Your task to perform on an android device: open app "Google Keep" Image 0: 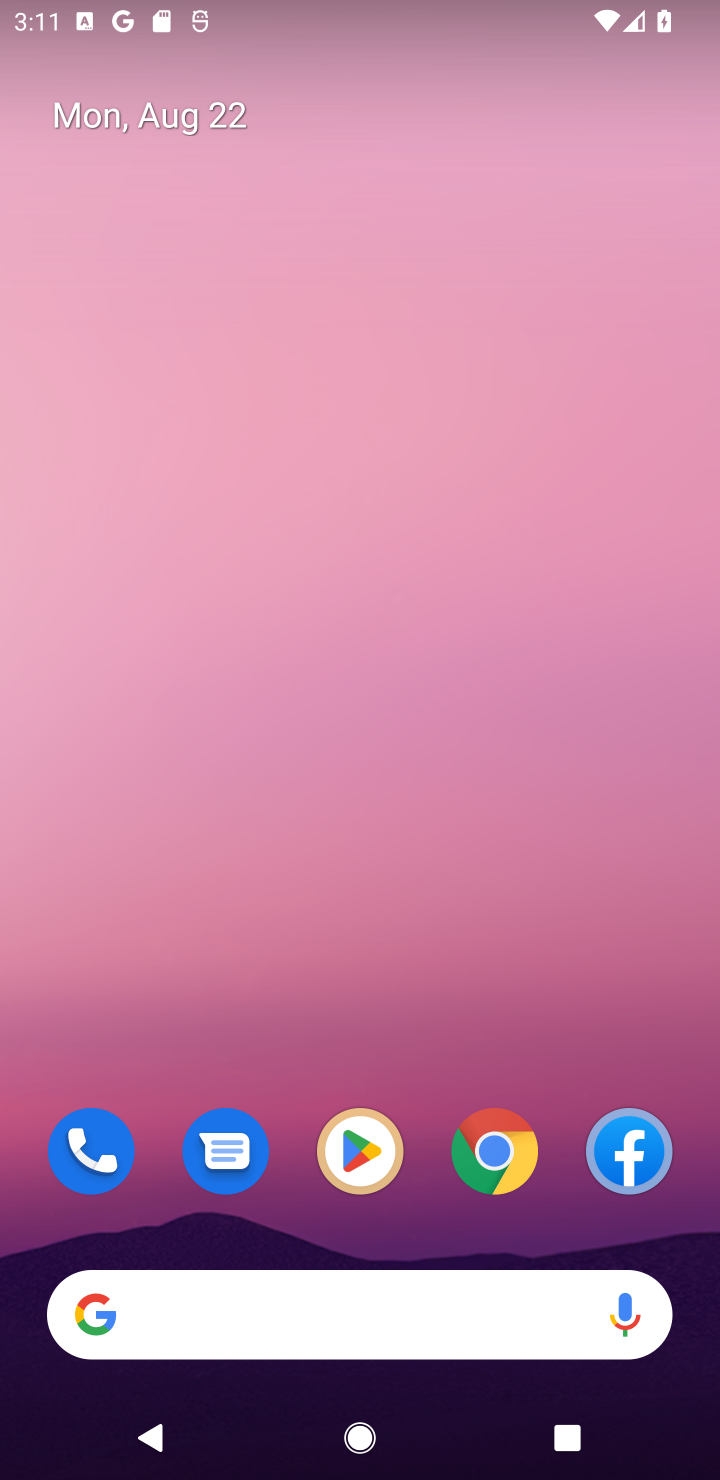
Step 0: click (357, 1170)
Your task to perform on an android device: open app "Google Keep" Image 1: 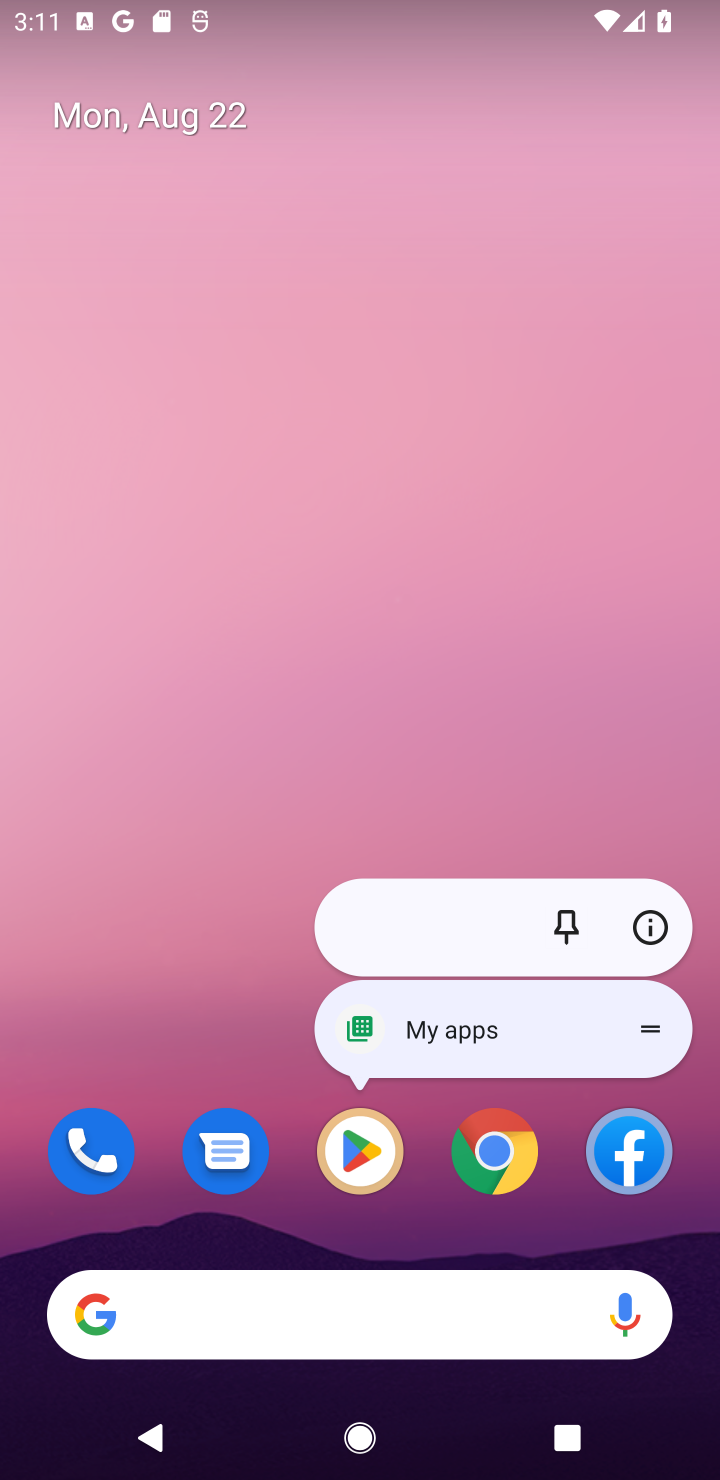
Step 1: click (359, 1181)
Your task to perform on an android device: open app "Google Keep" Image 2: 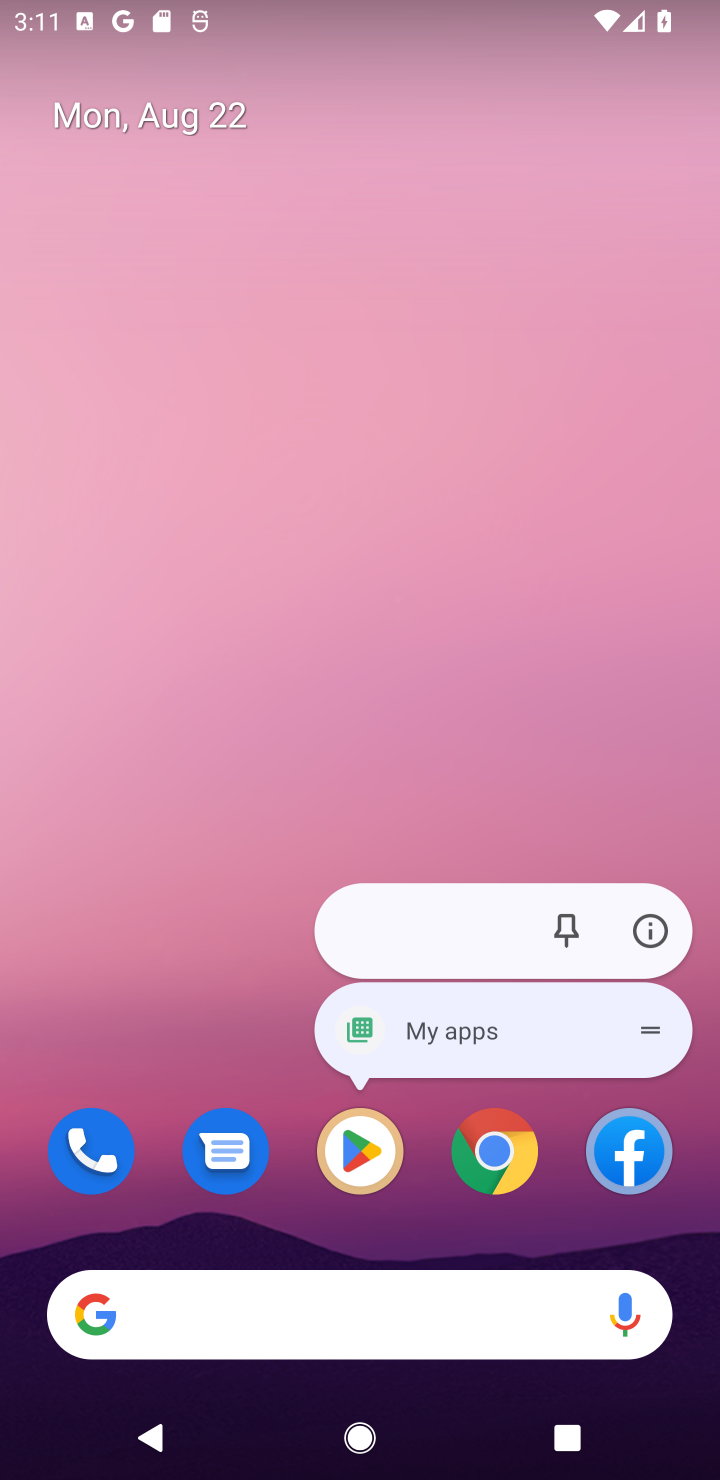
Step 2: click (357, 1152)
Your task to perform on an android device: open app "Google Keep" Image 3: 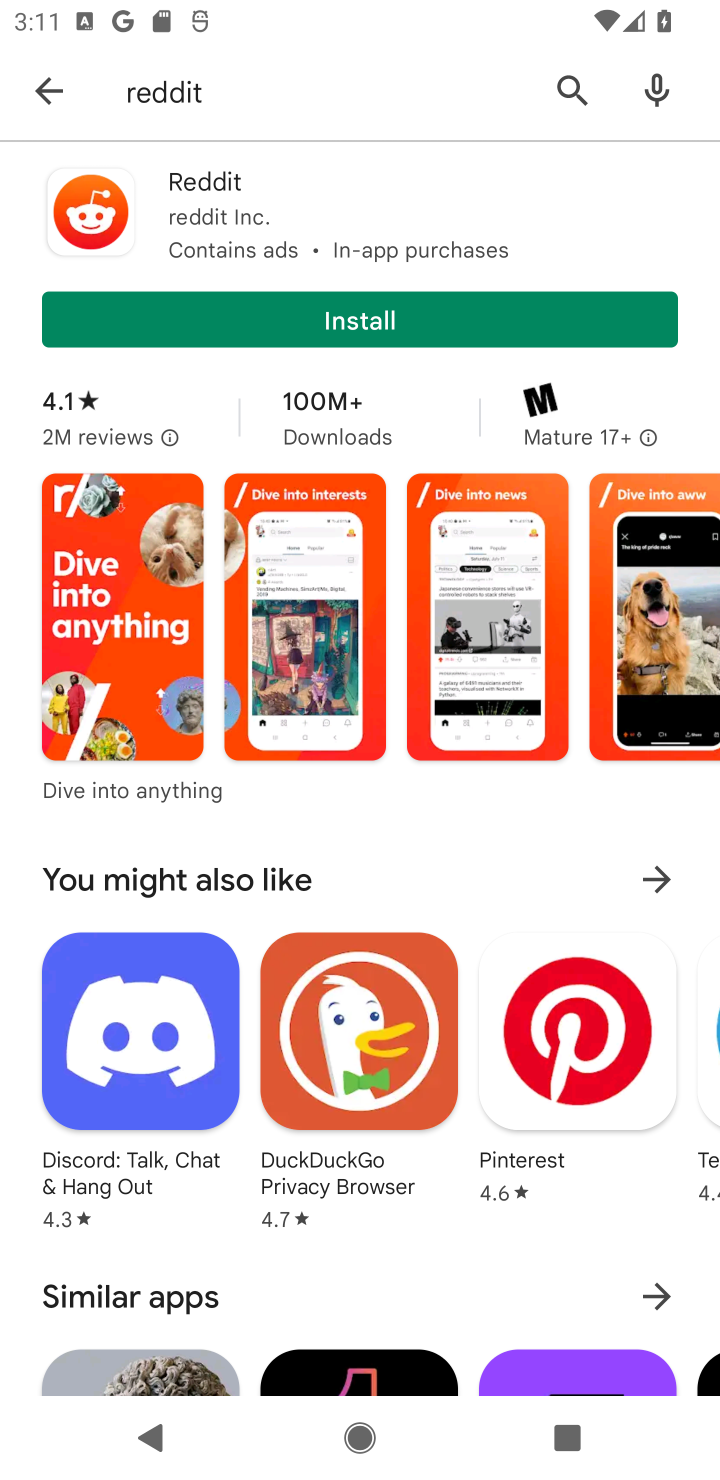
Step 3: click (355, 1158)
Your task to perform on an android device: open app "Google Keep" Image 4: 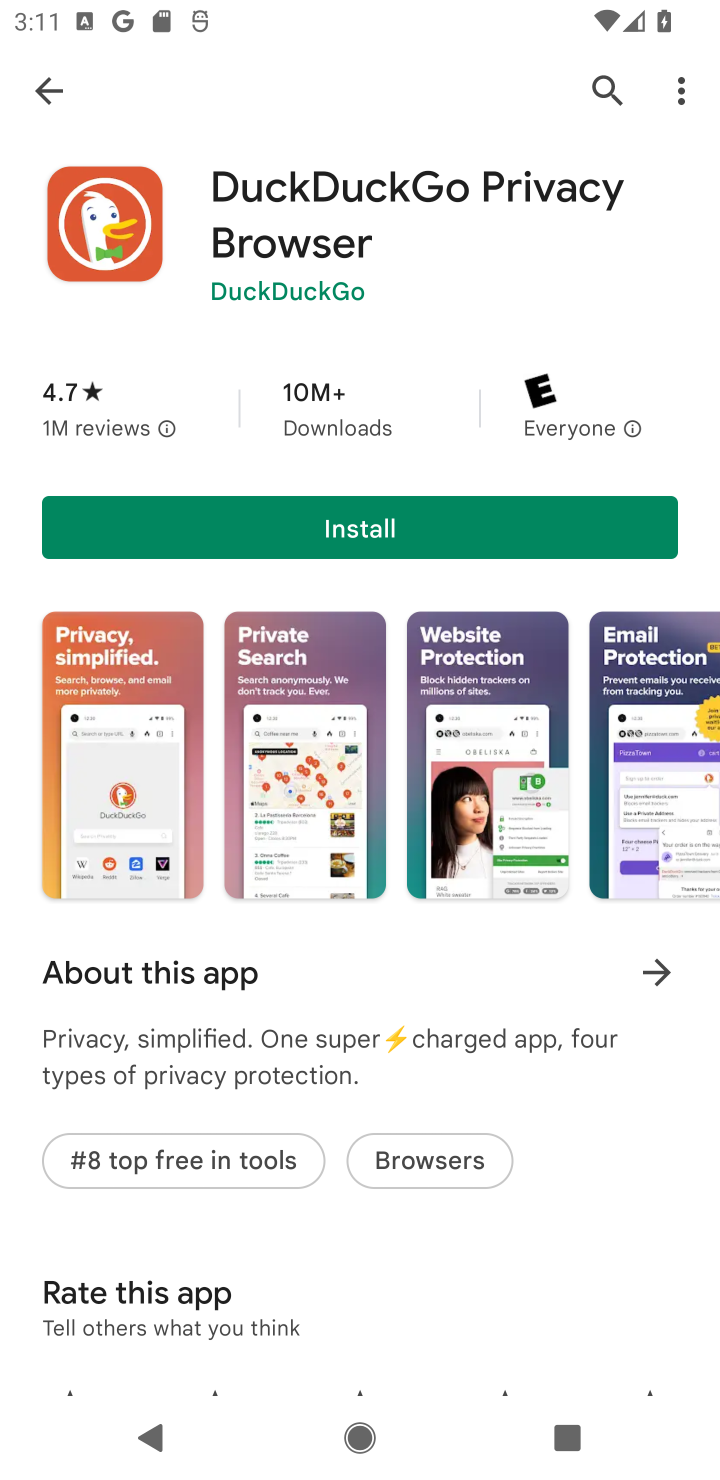
Step 4: click (597, 77)
Your task to perform on an android device: open app "Google Keep" Image 5: 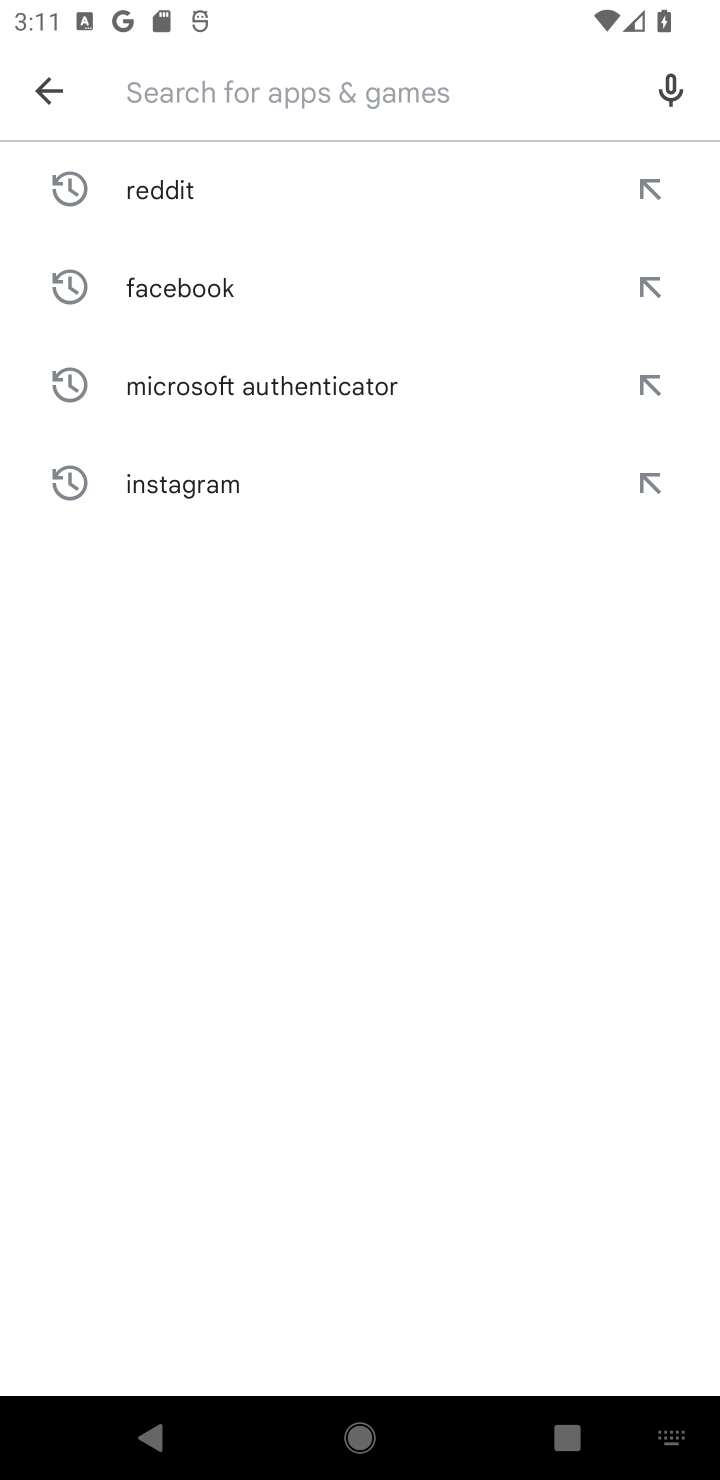
Step 5: type "Google Keep"
Your task to perform on an android device: open app "Google Keep" Image 6: 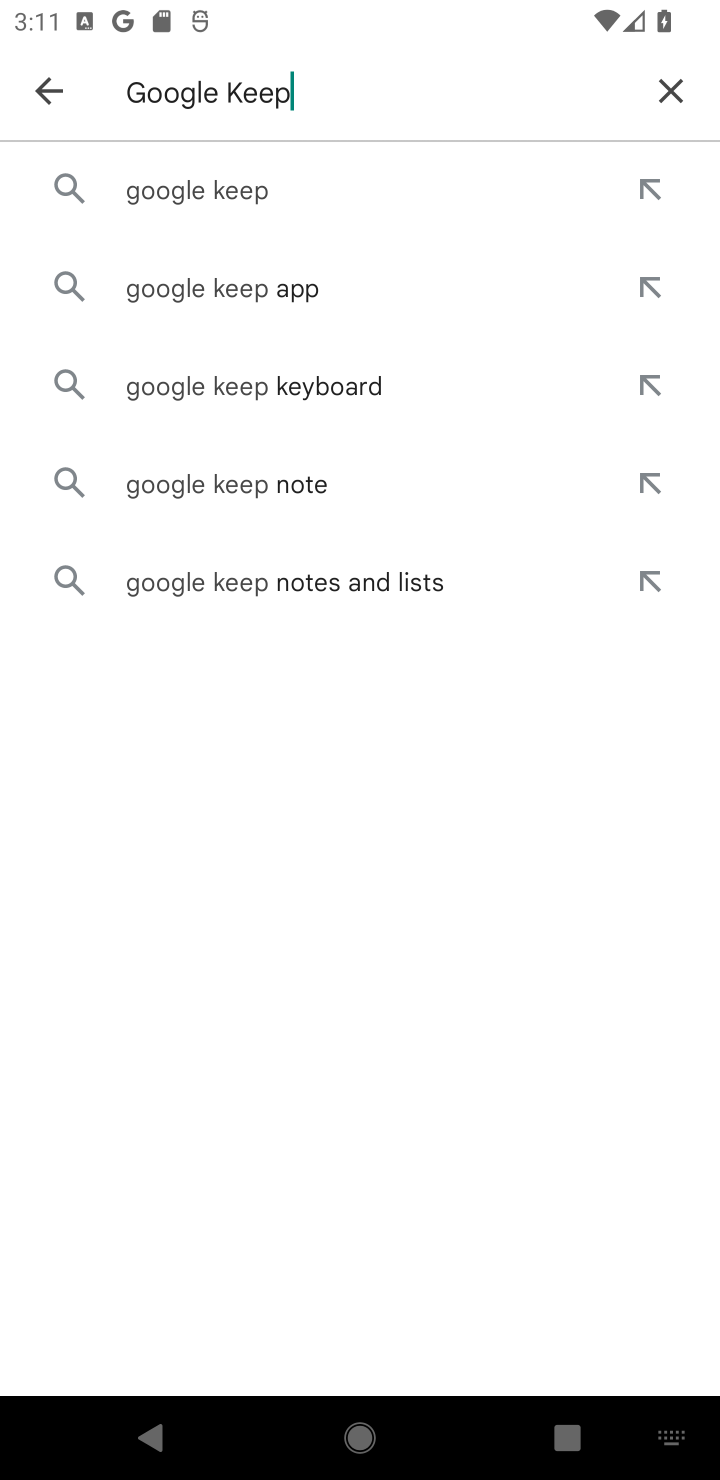
Step 6: click (175, 183)
Your task to perform on an android device: open app "Google Keep" Image 7: 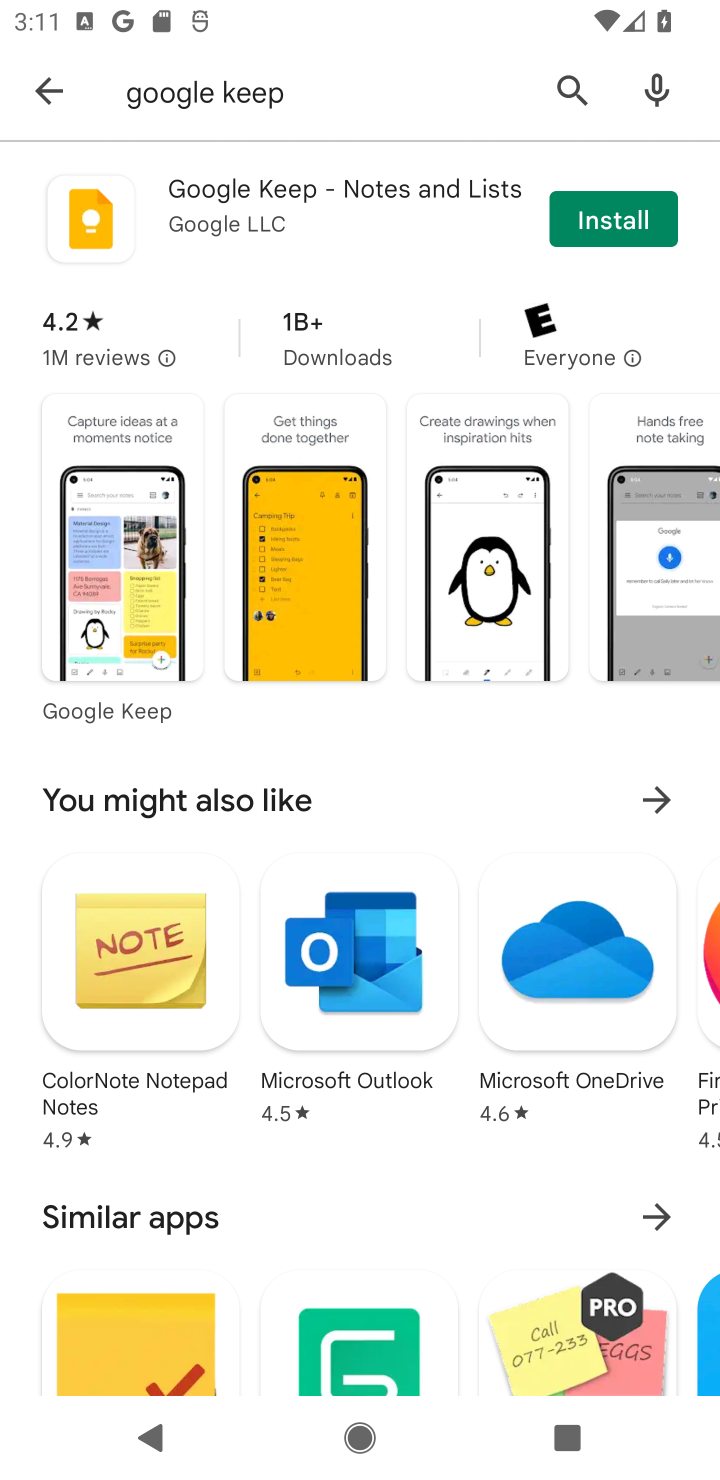
Step 7: task complete